Your task to perform on an android device: make emails show in primary in the gmail app Image 0: 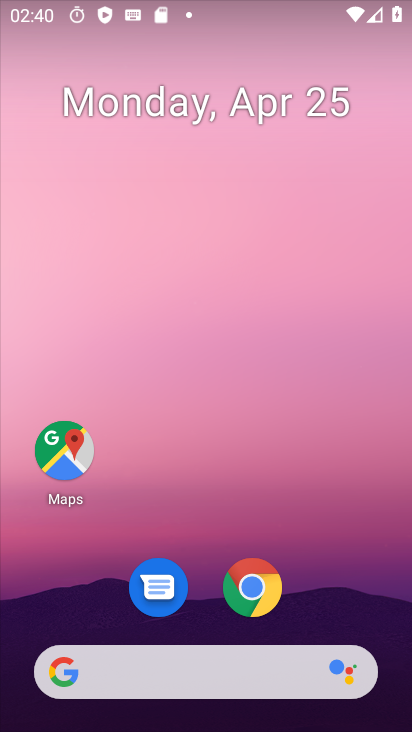
Step 0: drag from (347, 524) to (311, 107)
Your task to perform on an android device: make emails show in primary in the gmail app Image 1: 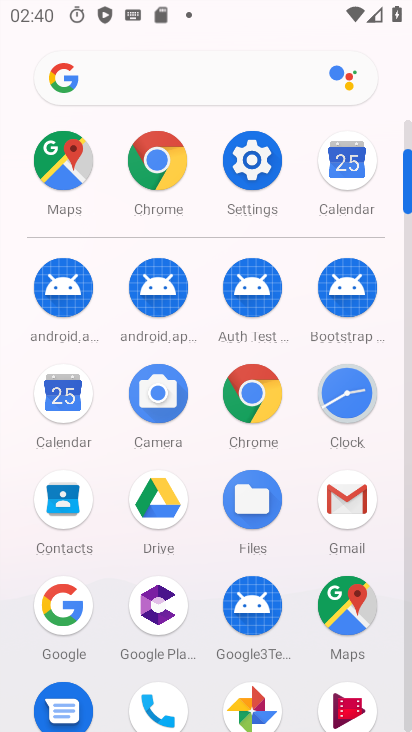
Step 1: click (348, 503)
Your task to perform on an android device: make emails show in primary in the gmail app Image 2: 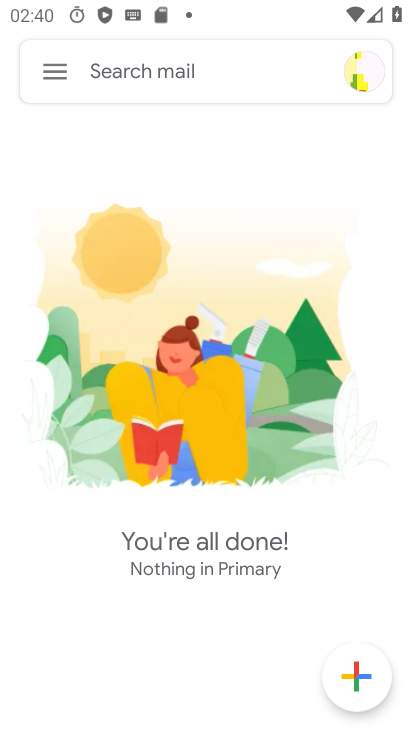
Step 2: click (52, 70)
Your task to perform on an android device: make emails show in primary in the gmail app Image 3: 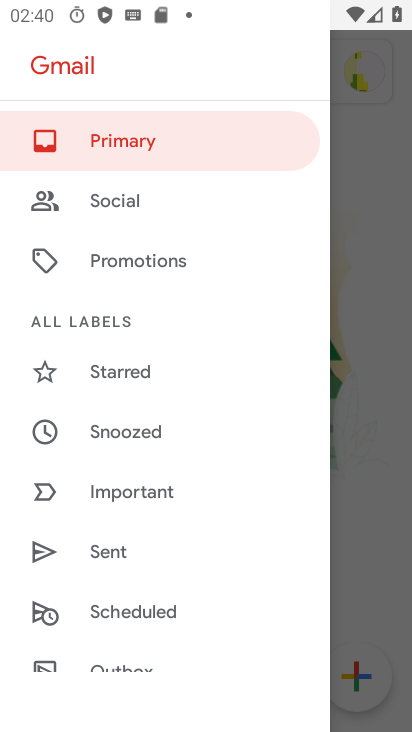
Step 3: drag from (127, 543) to (279, 125)
Your task to perform on an android device: make emails show in primary in the gmail app Image 4: 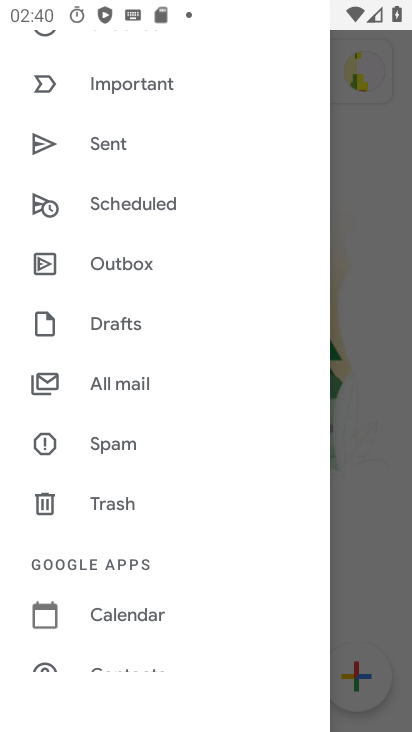
Step 4: drag from (141, 492) to (201, 147)
Your task to perform on an android device: make emails show in primary in the gmail app Image 5: 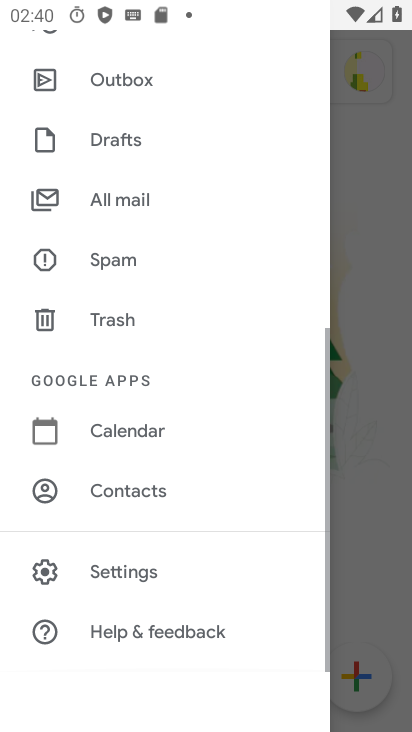
Step 5: drag from (192, 190) to (147, 648)
Your task to perform on an android device: make emails show in primary in the gmail app Image 6: 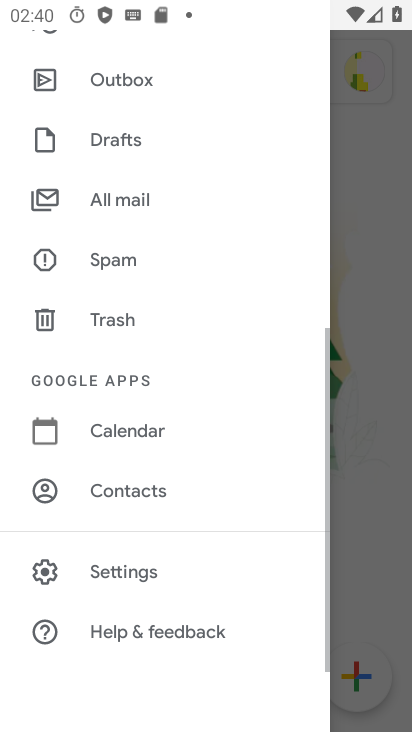
Step 6: click (104, 571)
Your task to perform on an android device: make emails show in primary in the gmail app Image 7: 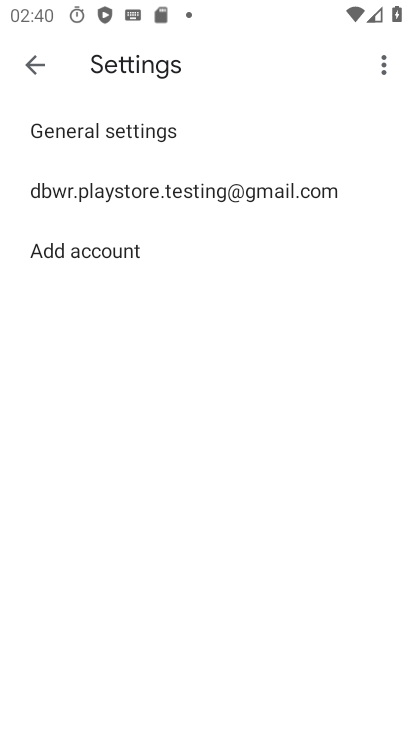
Step 7: click (229, 177)
Your task to perform on an android device: make emails show in primary in the gmail app Image 8: 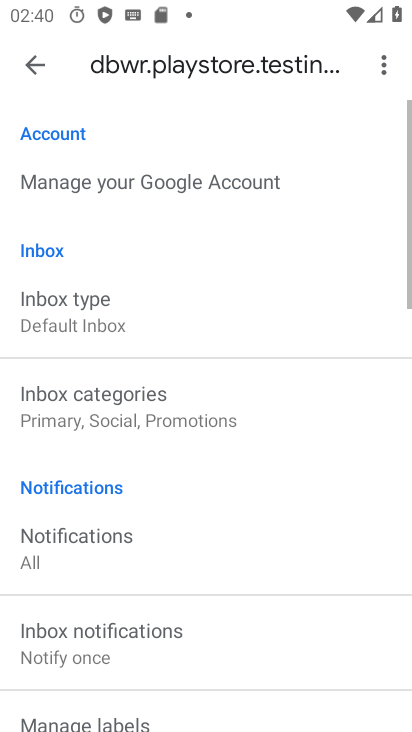
Step 8: drag from (193, 423) to (291, 121)
Your task to perform on an android device: make emails show in primary in the gmail app Image 9: 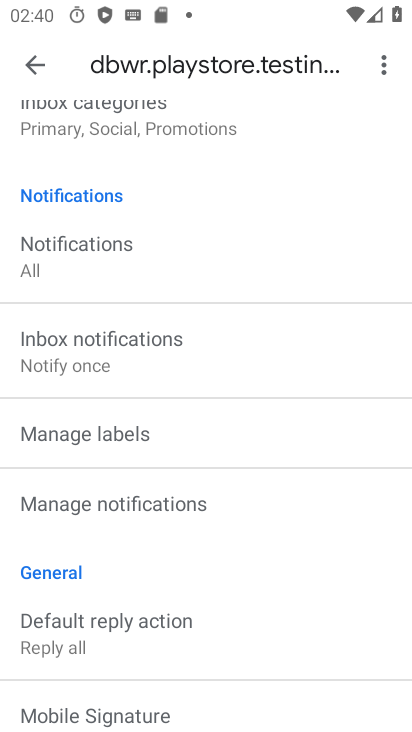
Step 9: drag from (265, 225) to (238, 593)
Your task to perform on an android device: make emails show in primary in the gmail app Image 10: 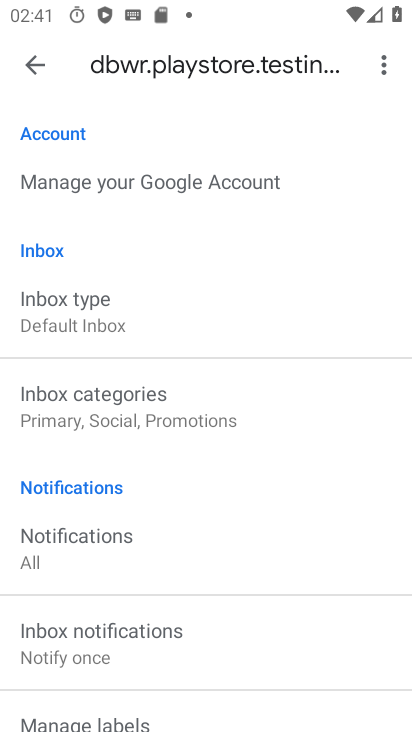
Step 10: click (106, 412)
Your task to perform on an android device: make emails show in primary in the gmail app Image 11: 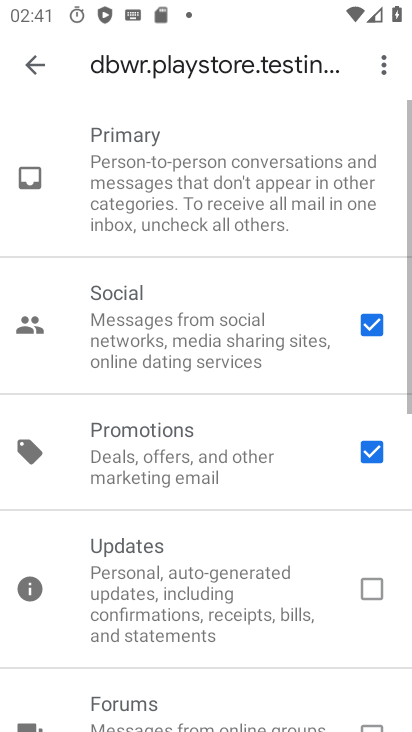
Step 11: task complete